Your task to perform on an android device: Open Chrome and go to the settings page Image 0: 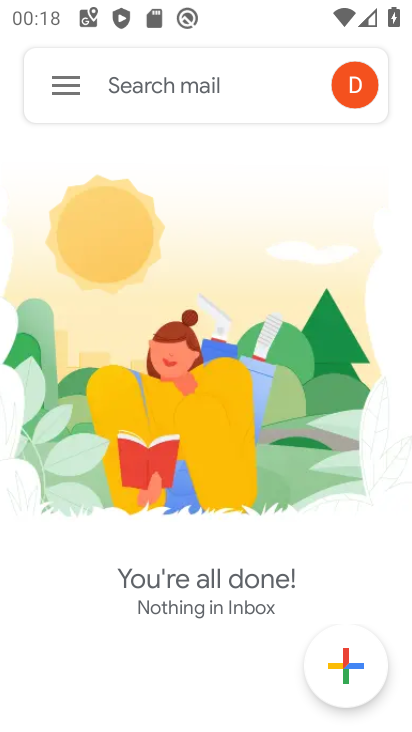
Step 0: press home button
Your task to perform on an android device: Open Chrome and go to the settings page Image 1: 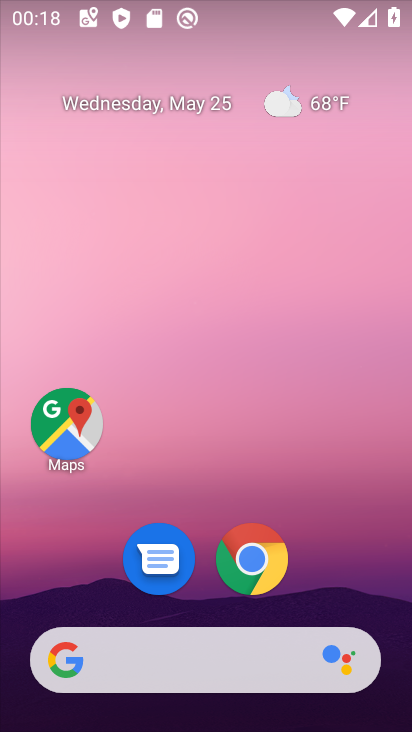
Step 1: click (255, 561)
Your task to perform on an android device: Open Chrome and go to the settings page Image 2: 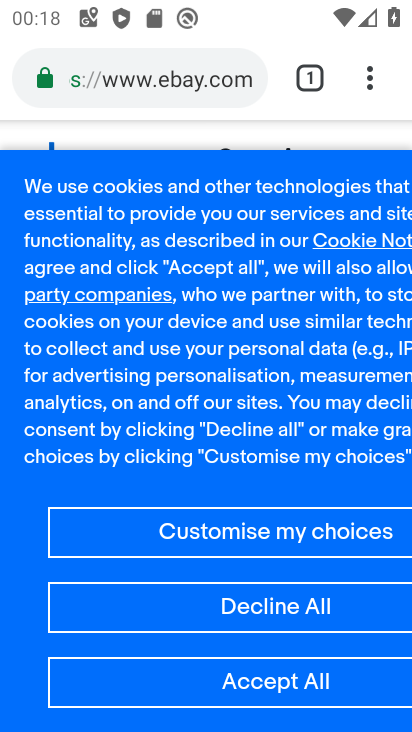
Step 2: click (364, 85)
Your task to perform on an android device: Open Chrome and go to the settings page Image 3: 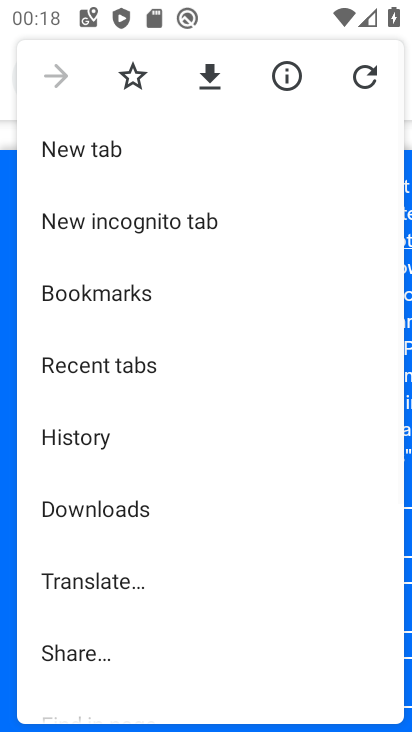
Step 3: drag from (220, 605) to (260, 132)
Your task to perform on an android device: Open Chrome and go to the settings page Image 4: 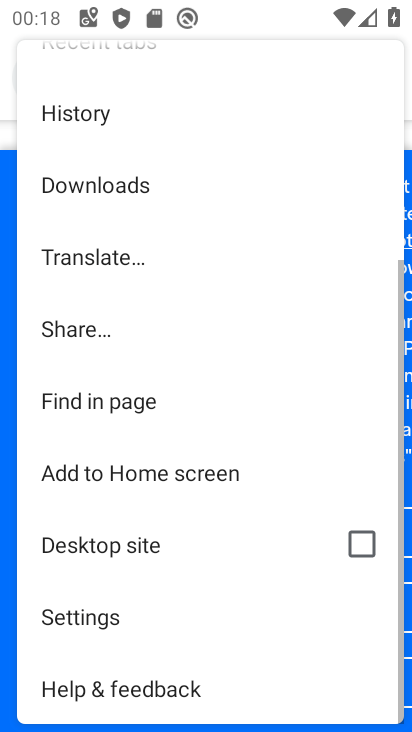
Step 4: click (112, 615)
Your task to perform on an android device: Open Chrome and go to the settings page Image 5: 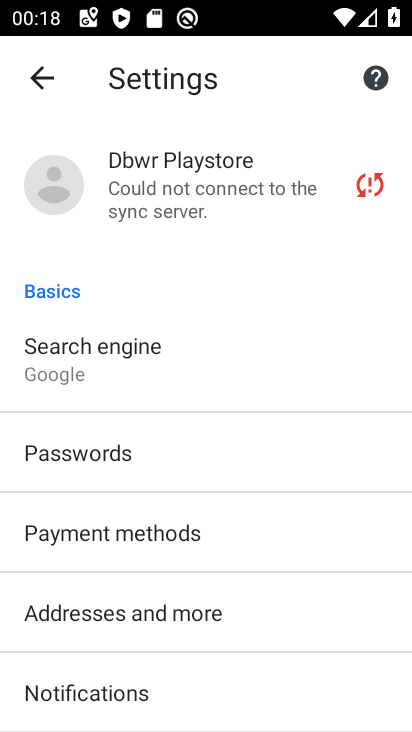
Step 5: task complete